Your task to perform on an android device: Set the phone to "Do not disturb". Image 0: 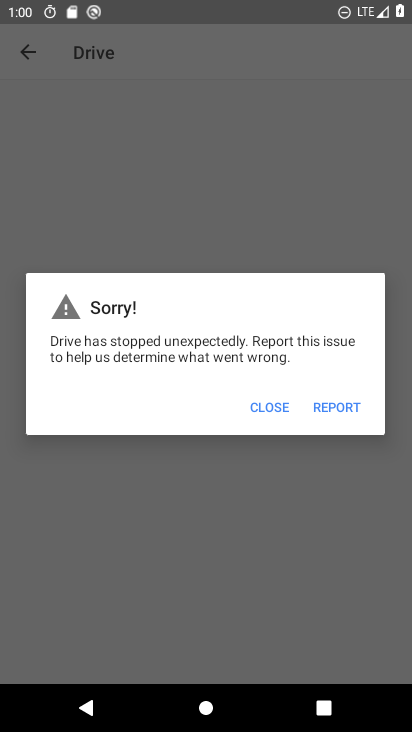
Step 0: press home button
Your task to perform on an android device: Set the phone to "Do not disturb". Image 1: 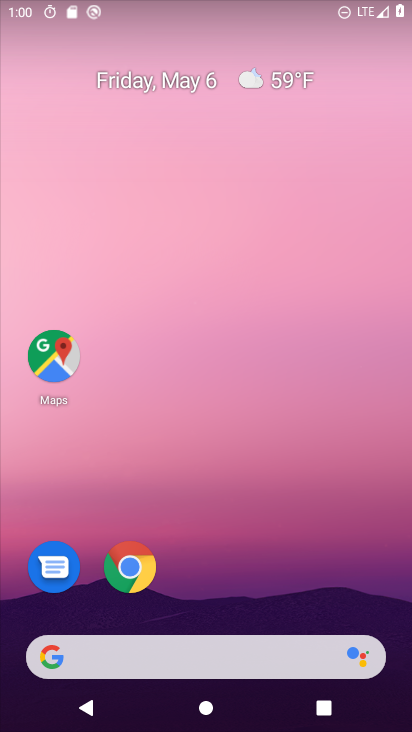
Step 1: drag from (275, 605) to (273, 59)
Your task to perform on an android device: Set the phone to "Do not disturb". Image 2: 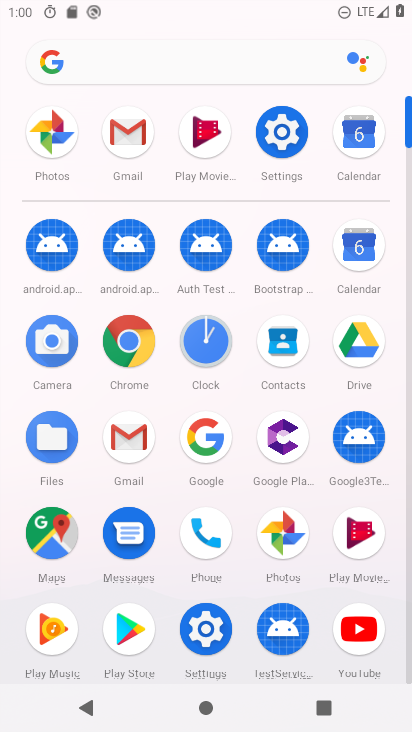
Step 2: click (278, 140)
Your task to perform on an android device: Set the phone to "Do not disturb". Image 3: 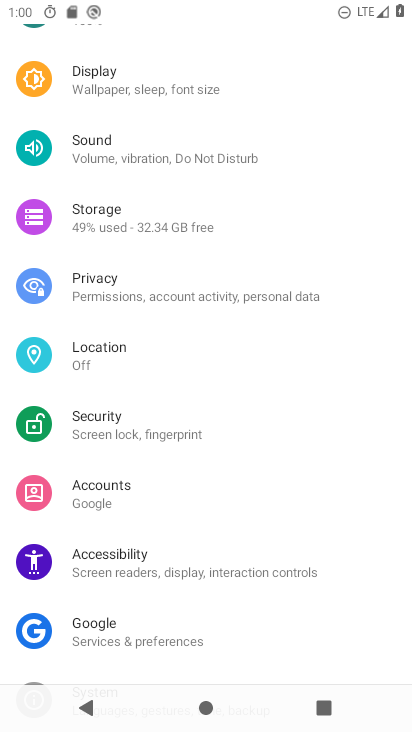
Step 3: click (95, 158)
Your task to perform on an android device: Set the phone to "Do not disturb". Image 4: 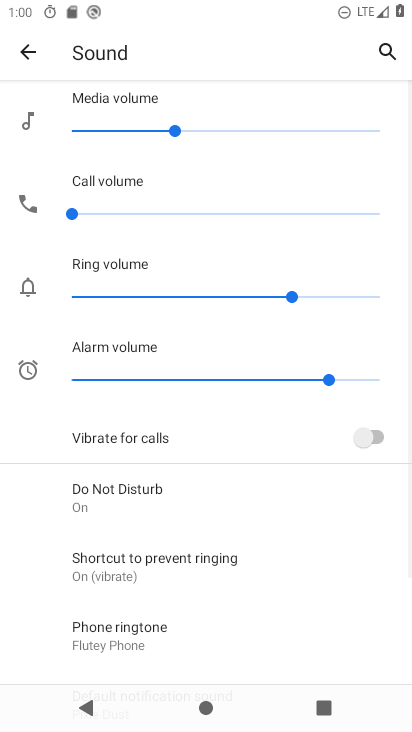
Step 4: click (125, 496)
Your task to perform on an android device: Set the phone to "Do not disturb". Image 5: 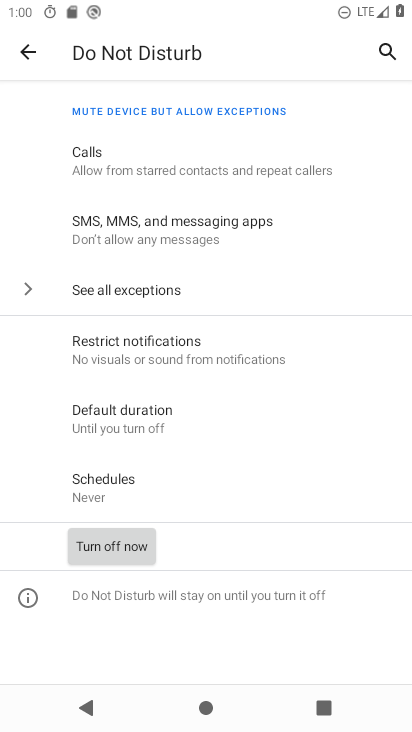
Step 5: task complete